Your task to perform on an android device: check android version Image 0: 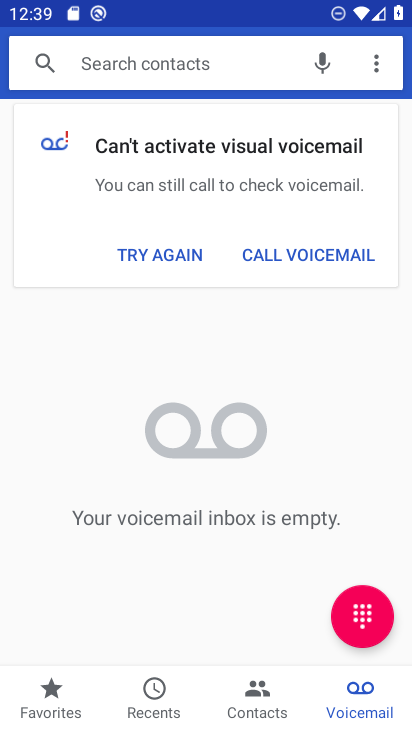
Step 0: press home button
Your task to perform on an android device: check android version Image 1: 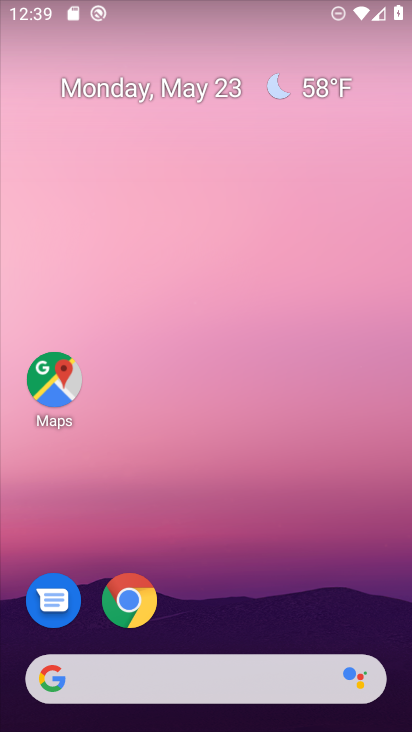
Step 1: drag from (291, 532) to (255, 121)
Your task to perform on an android device: check android version Image 2: 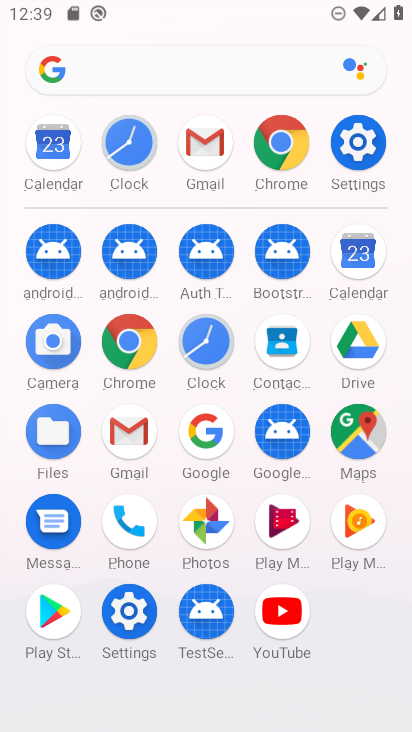
Step 2: click (377, 151)
Your task to perform on an android device: check android version Image 3: 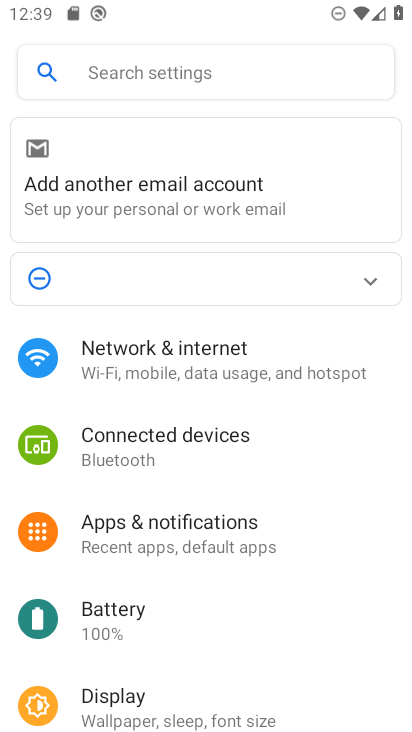
Step 3: drag from (181, 593) to (133, 110)
Your task to perform on an android device: check android version Image 4: 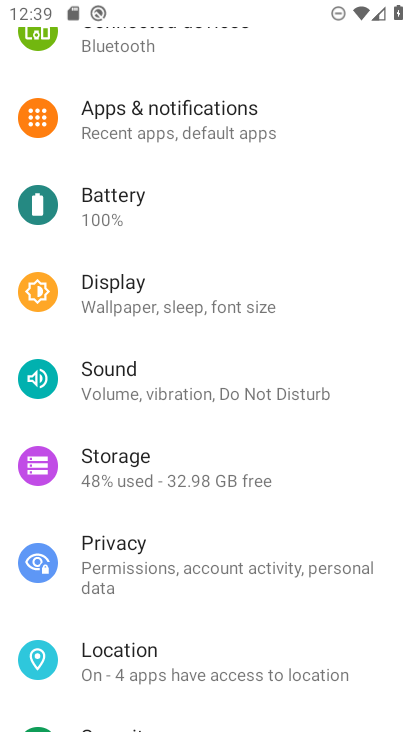
Step 4: drag from (236, 614) to (200, 186)
Your task to perform on an android device: check android version Image 5: 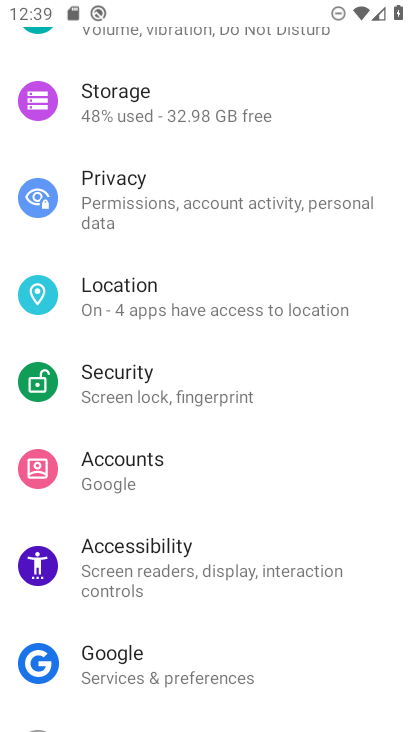
Step 5: drag from (226, 644) to (245, 179)
Your task to perform on an android device: check android version Image 6: 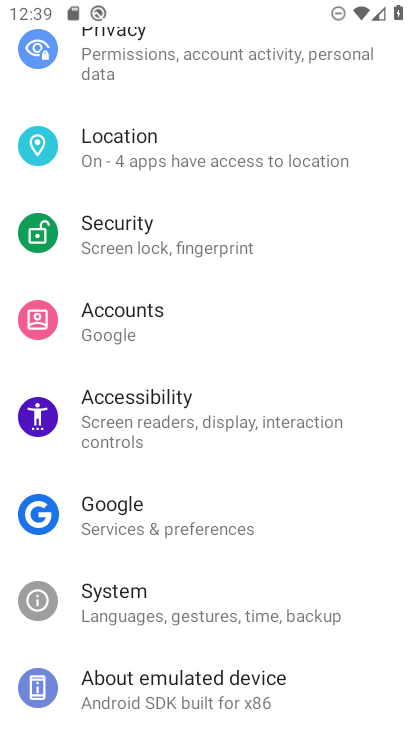
Step 6: click (188, 673)
Your task to perform on an android device: check android version Image 7: 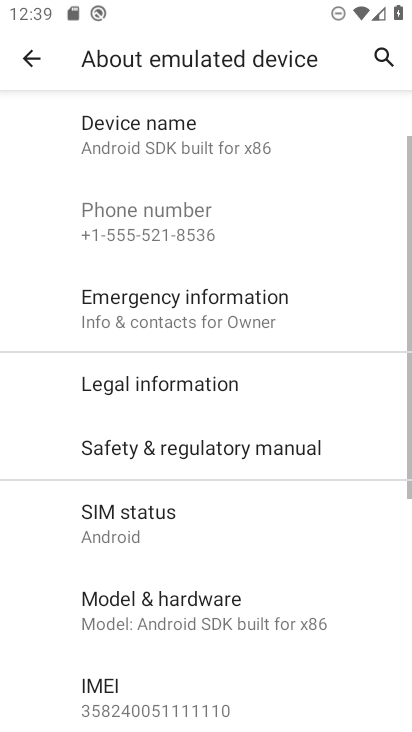
Step 7: drag from (186, 522) to (268, 20)
Your task to perform on an android device: check android version Image 8: 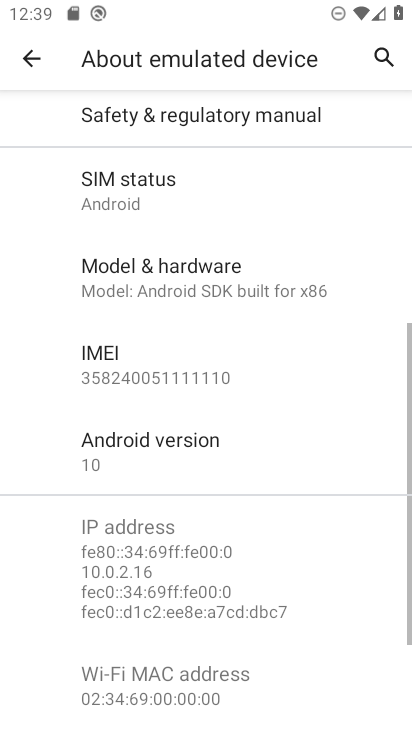
Step 8: drag from (193, 626) to (253, 238)
Your task to perform on an android device: check android version Image 9: 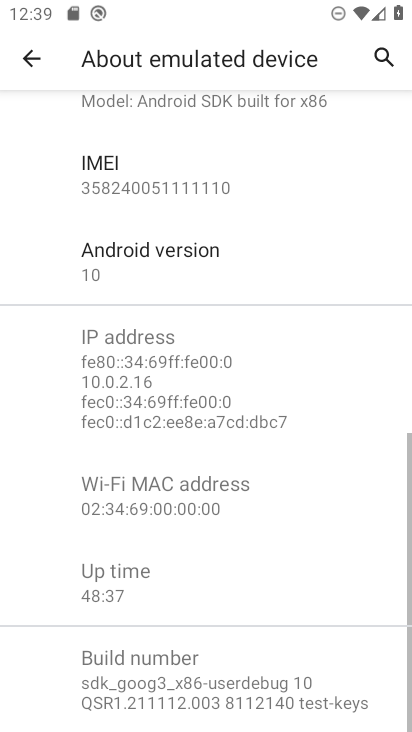
Step 9: click (214, 258)
Your task to perform on an android device: check android version Image 10: 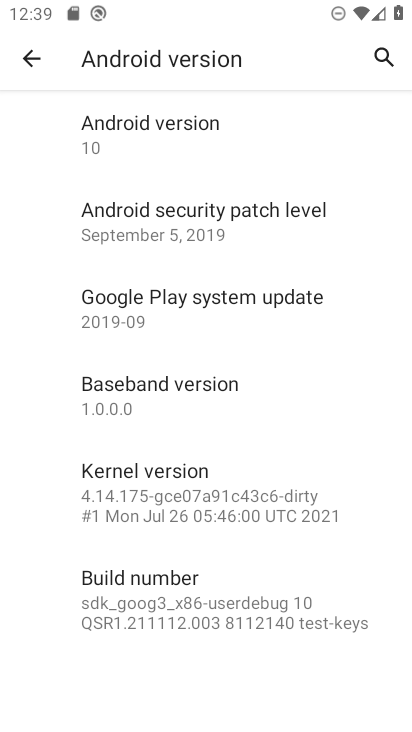
Step 10: click (147, 136)
Your task to perform on an android device: check android version Image 11: 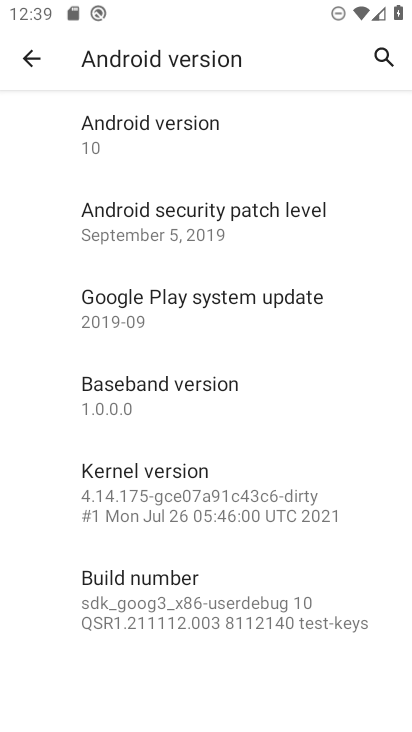
Step 11: task complete